Your task to perform on an android device: Turn on the flashlight Image 0: 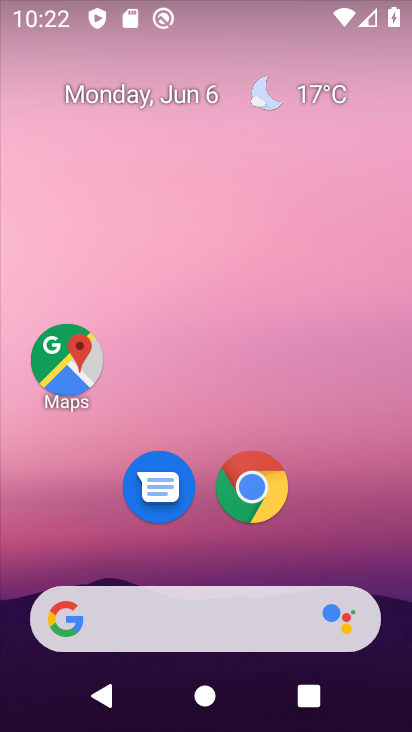
Step 0: drag from (206, 42) to (232, 559)
Your task to perform on an android device: Turn on the flashlight Image 1: 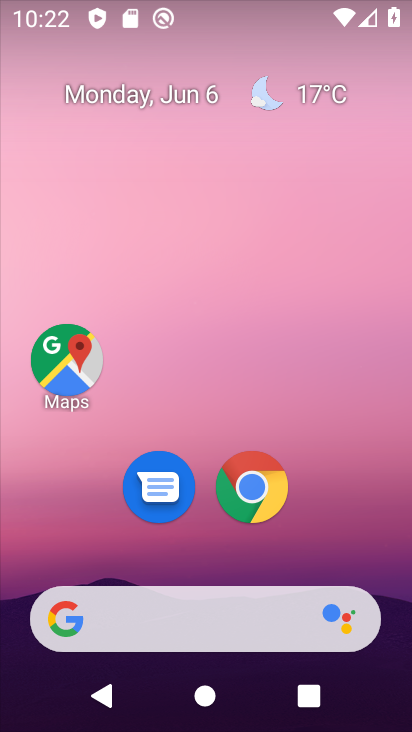
Step 1: drag from (206, 22) to (190, 691)
Your task to perform on an android device: Turn on the flashlight Image 2: 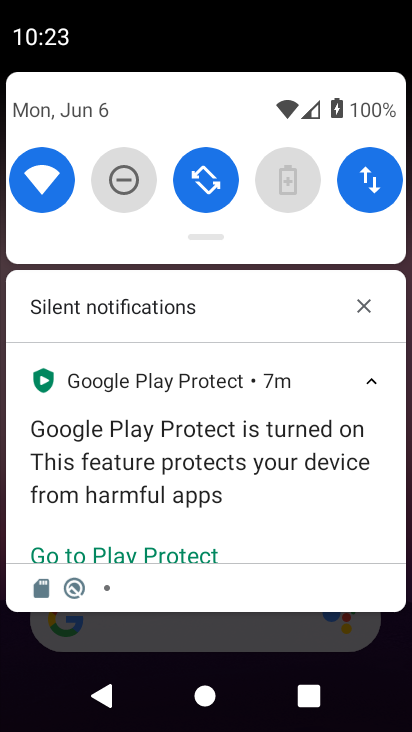
Step 2: drag from (223, 235) to (170, 731)
Your task to perform on an android device: Turn on the flashlight Image 3: 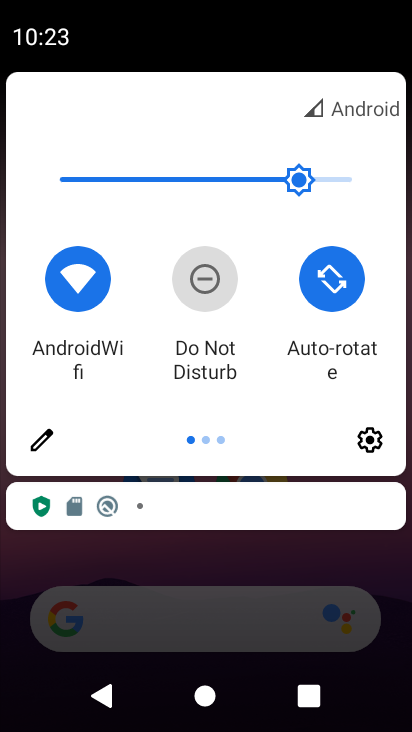
Step 3: click (42, 451)
Your task to perform on an android device: Turn on the flashlight Image 4: 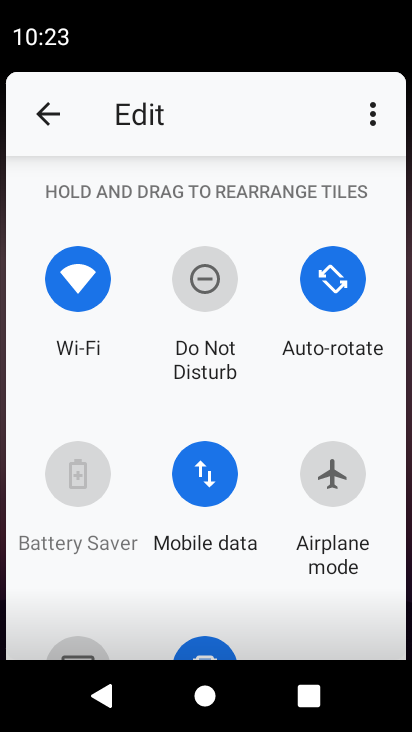
Step 4: task complete